Your task to perform on an android device: What's the news in Colombia? Image 0: 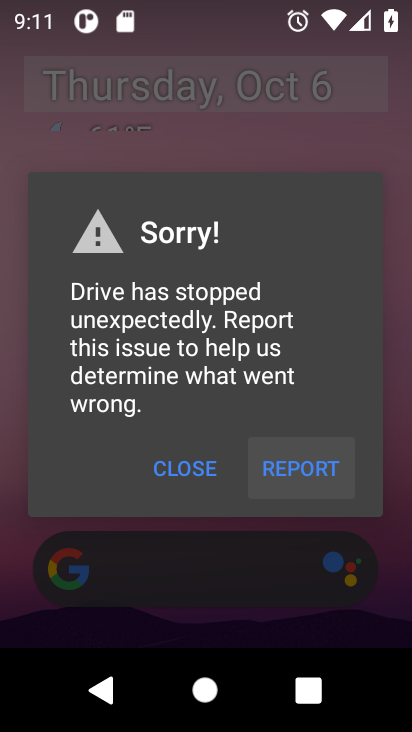
Step 0: click (164, 456)
Your task to perform on an android device: What's the news in Colombia? Image 1: 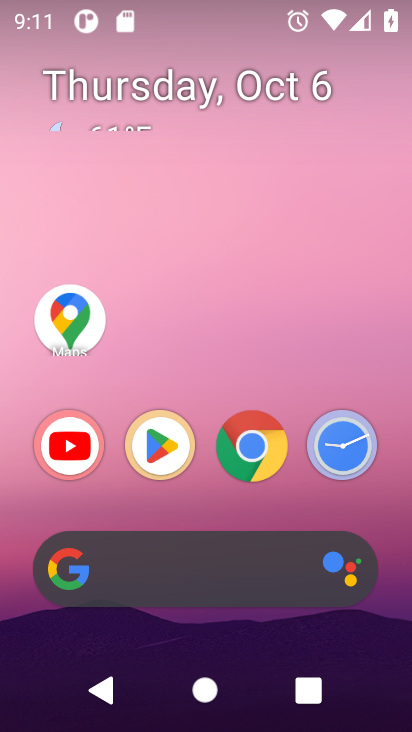
Step 1: click (217, 561)
Your task to perform on an android device: What's the news in Colombia? Image 2: 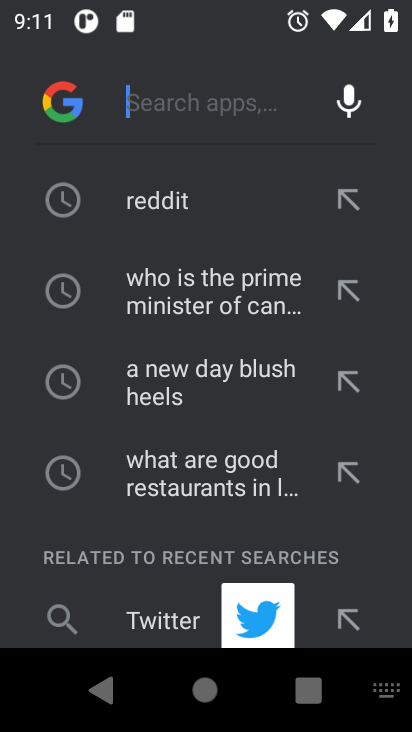
Step 2: type "What's the news in Colombia?"
Your task to perform on an android device: What's the news in Colombia? Image 3: 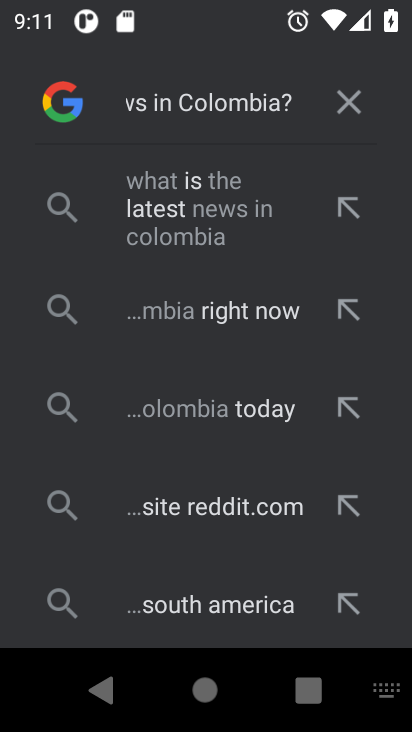
Step 3: click (215, 188)
Your task to perform on an android device: What's the news in Colombia? Image 4: 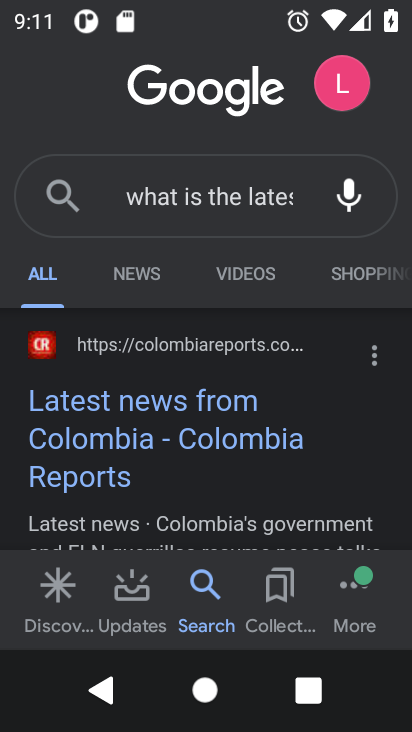
Step 4: click (142, 417)
Your task to perform on an android device: What's the news in Colombia? Image 5: 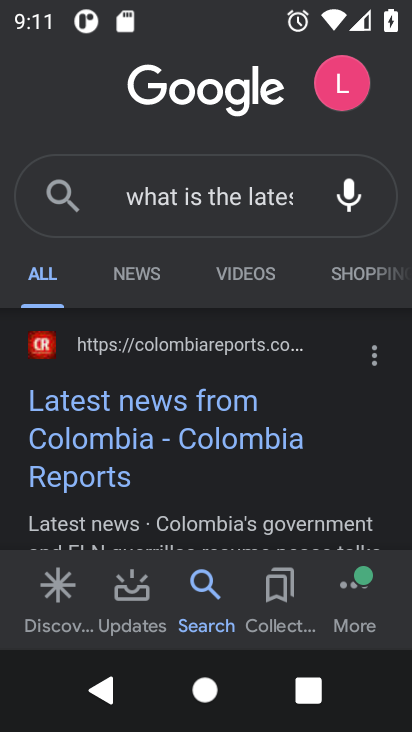
Step 5: task complete